Your task to perform on an android device: set an alarm Image 0: 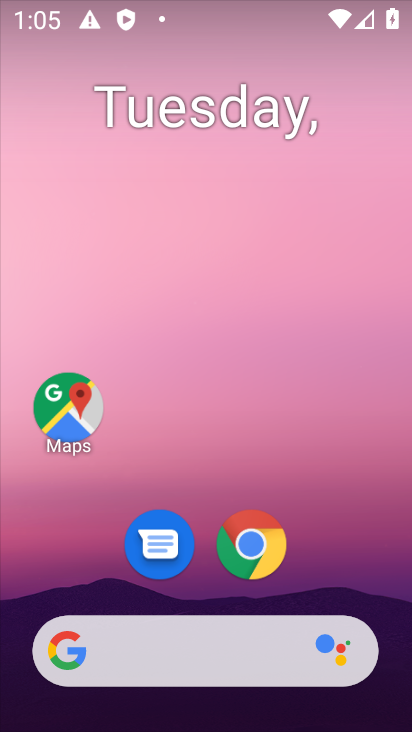
Step 0: drag from (335, 554) to (272, 8)
Your task to perform on an android device: set an alarm Image 1: 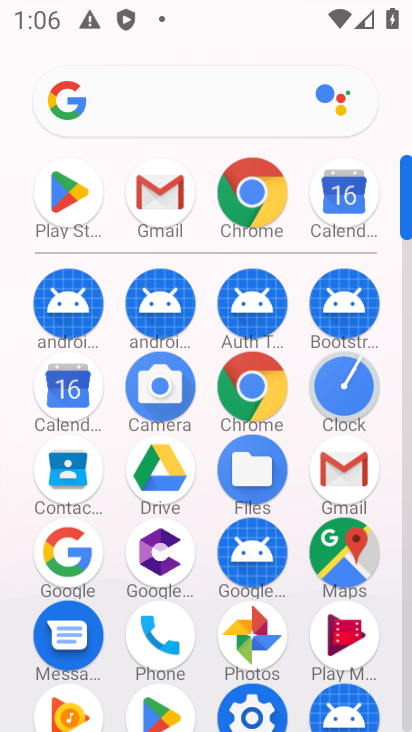
Step 1: click (354, 370)
Your task to perform on an android device: set an alarm Image 2: 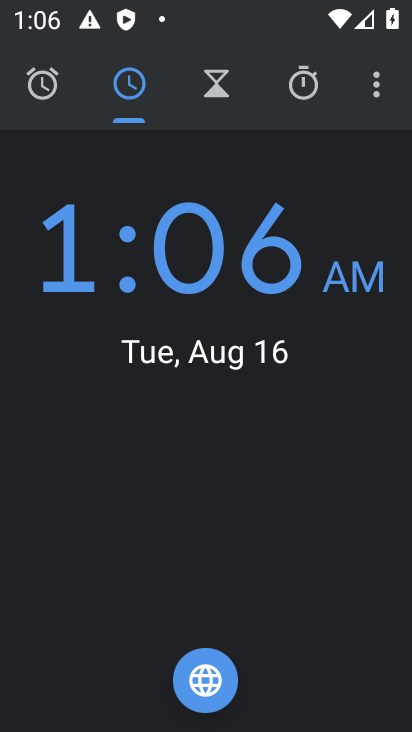
Step 2: click (60, 85)
Your task to perform on an android device: set an alarm Image 3: 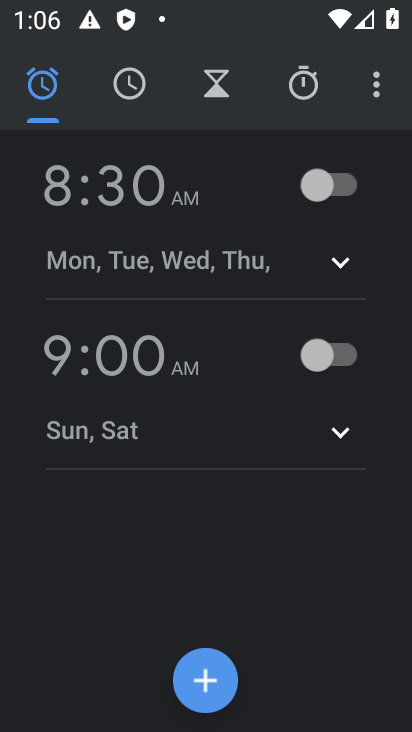
Step 3: click (201, 685)
Your task to perform on an android device: set an alarm Image 4: 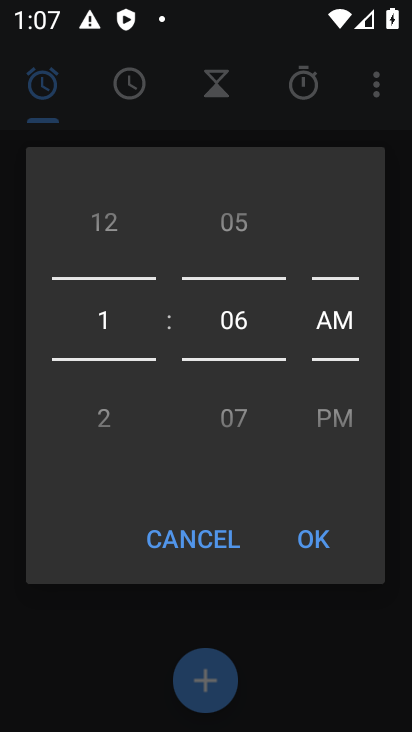
Step 4: click (323, 542)
Your task to perform on an android device: set an alarm Image 5: 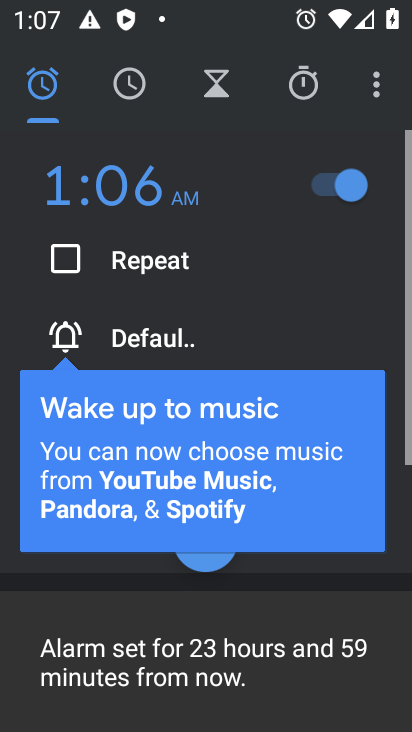
Step 5: task complete